Your task to perform on an android device: Open the phone app and click the voicemail tab. Image 0: 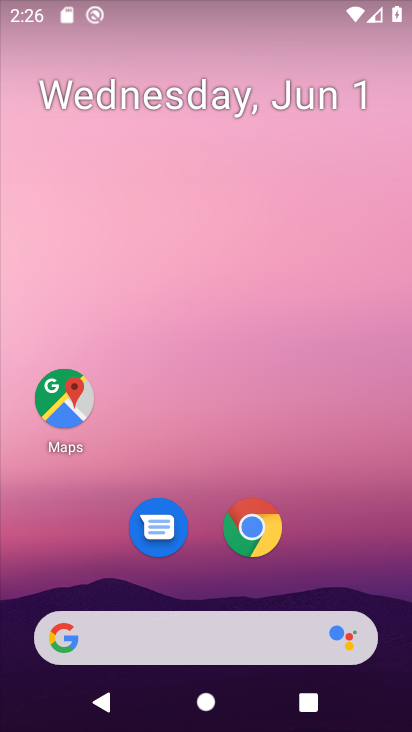
Step 0: drag from (217, 377) to (236, 292)
Your task to perform on an android device: Open the phone app and click the voicemail tab. Image 1: 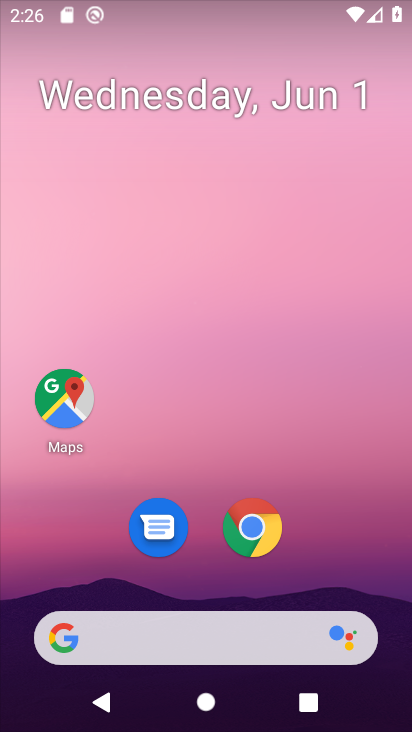
Step 1: drag from (197, 569) to (260, 2)
Your task to perform on an android device: Open the phone app and click the voicemail tab. Image 2: 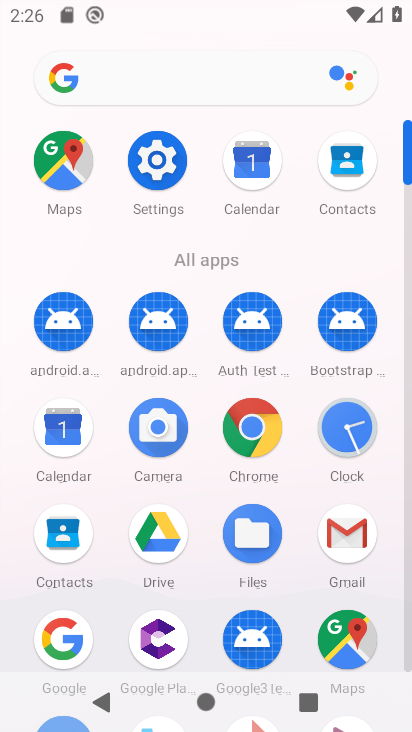
Step 2: drag from (193, 597) to (243, 299)
Your task to perform on an android device: Open the phone app and click the voicemail tab. Image 3: 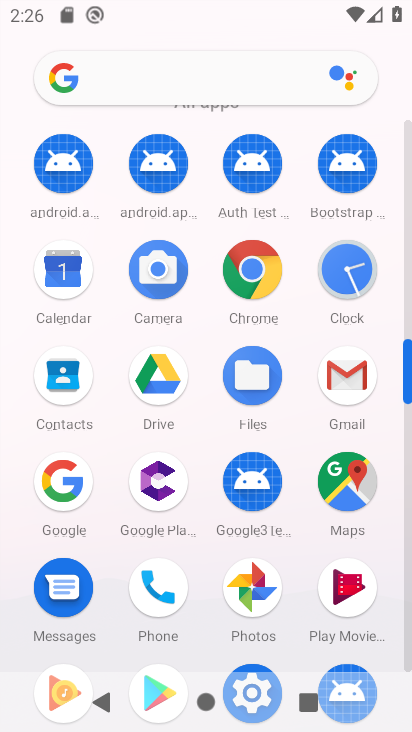
Step 3: click (173, 611)
Your task to perform on an android device: Open the phone app and click the voicemail tab. Image 4: 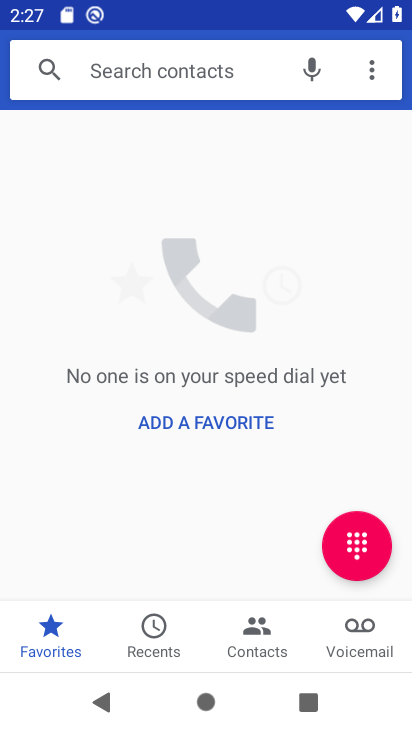
Step 4: click (355, 628)
Your task to perform on an android device: Open the phone app and click the voicemail tab. Image 5: 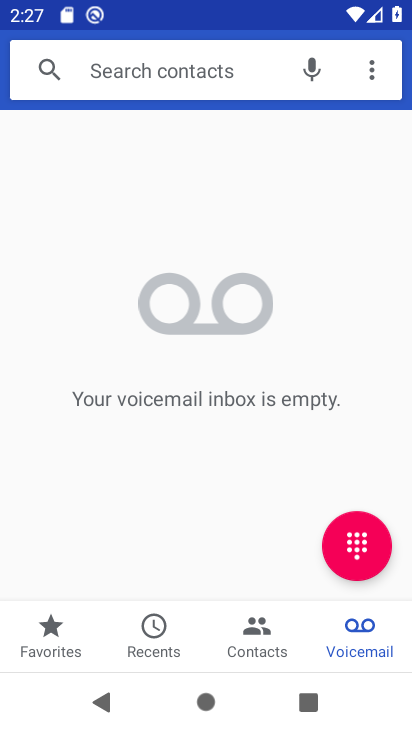
Step 5: task complete